Your task to perform on an android device: turn off location history Image 0: 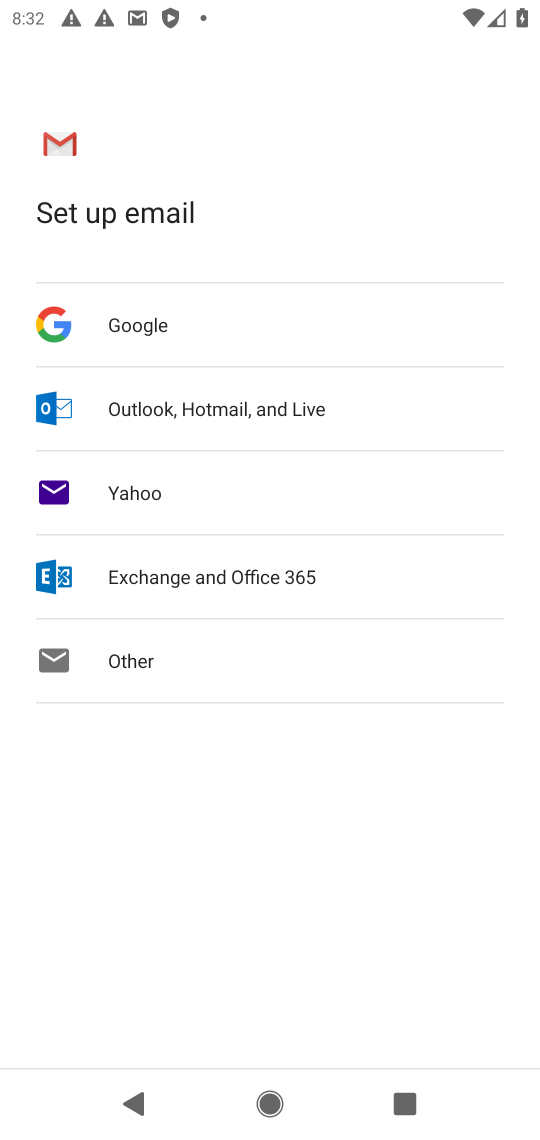
Step 0: press home button
Your task to perform on an android device: turn off location history Image 1: 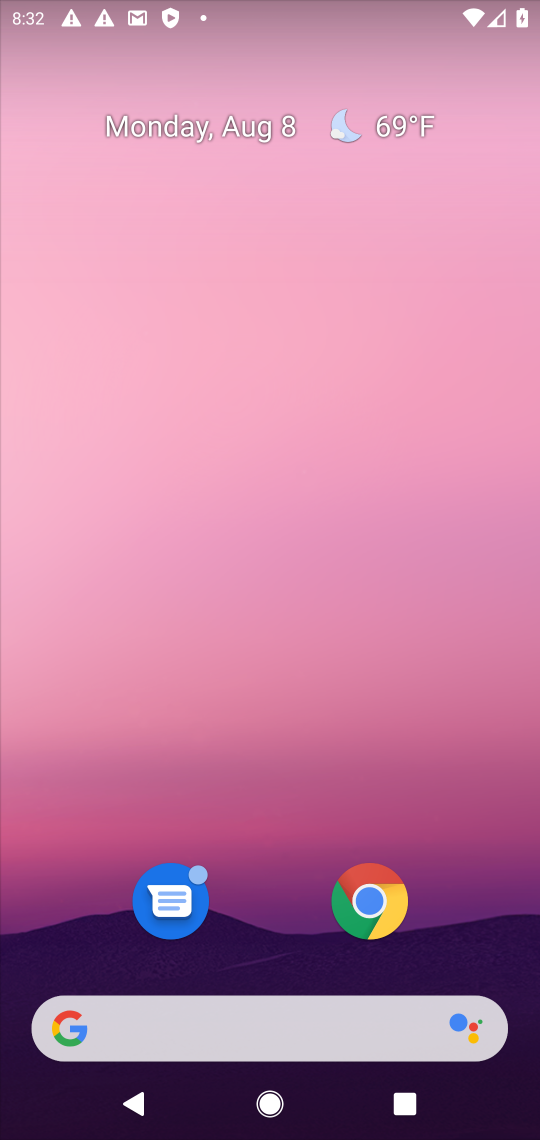
Step 1: drag from (259, 863) to (248, 226)
Your task to perform on an android device: turn off location history Image 2: 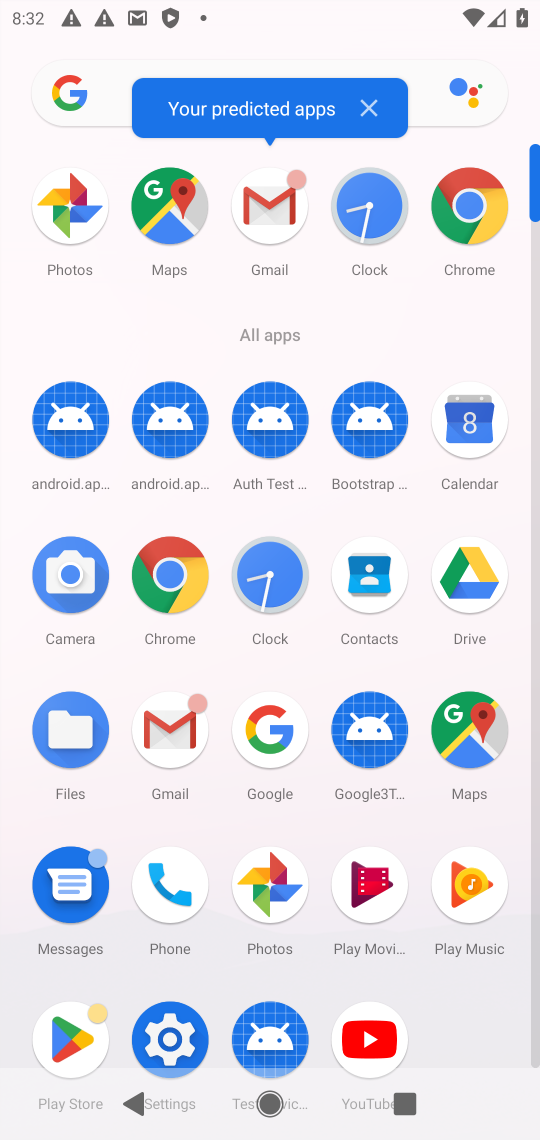
Step 2: click (155, 1035)
Your task to perform on an android device: turn off location history Image 3: 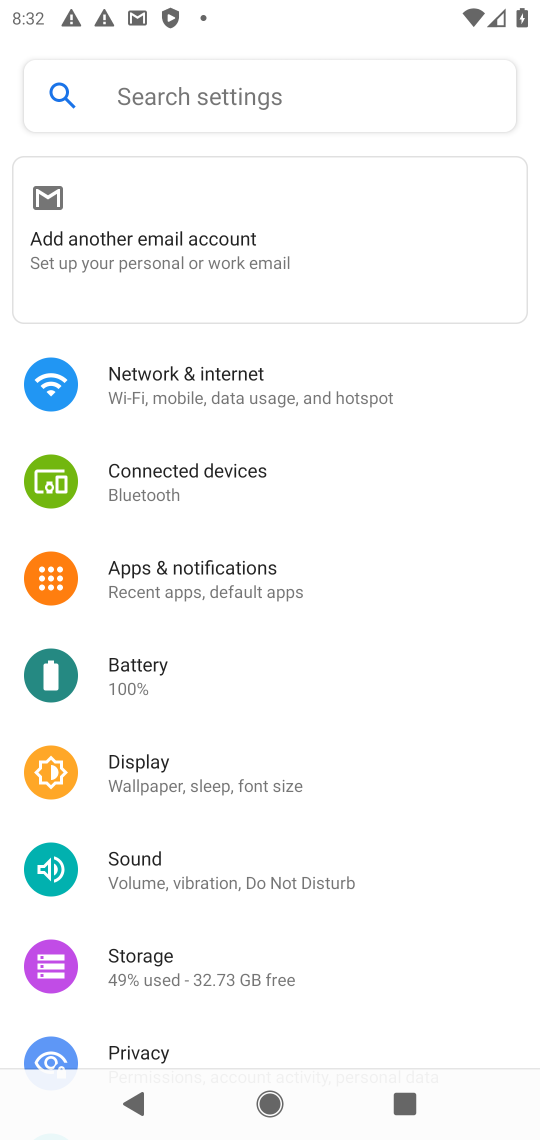
Step 3: drag from (278, 1018) to (253, 646)
Your task to perform on an android device: turn off location history Image 4: 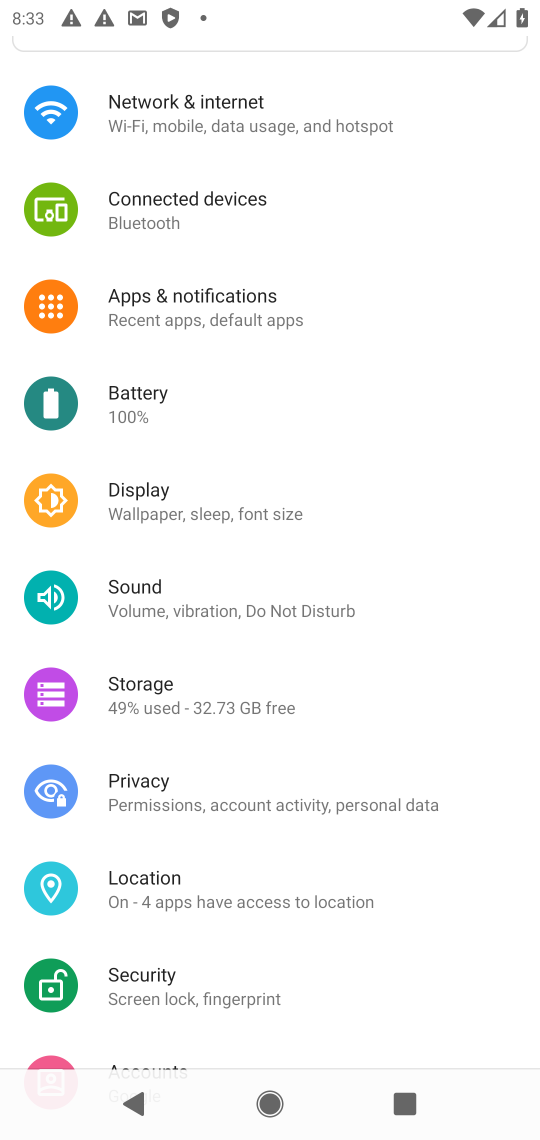
Step 4: click (253, 452)
Your task to perform on an android device: turn off location history Image 5: 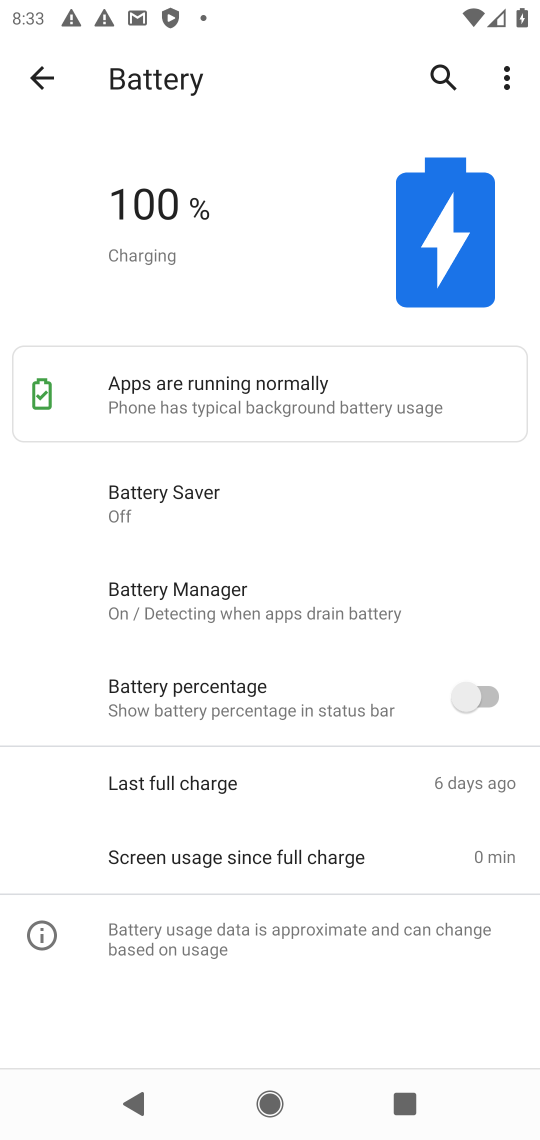
Step 5: click (33, 80)
Your task to perform on an android device: turn off location history Image 6: 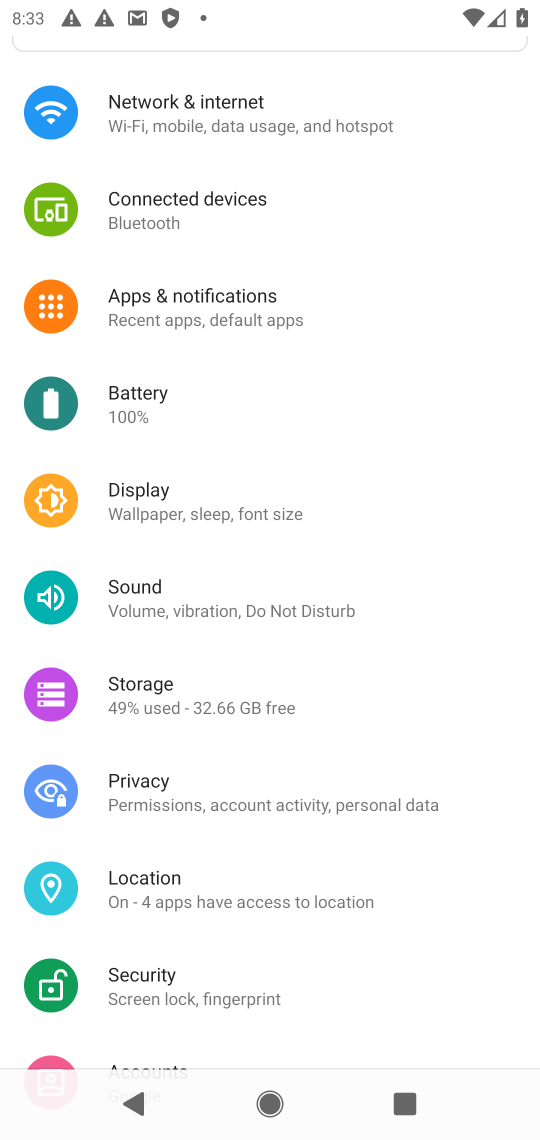
Step 6: drag from (176, 769) to (176, 652)
Your task to perform on an android device: turn off location history Image 7: 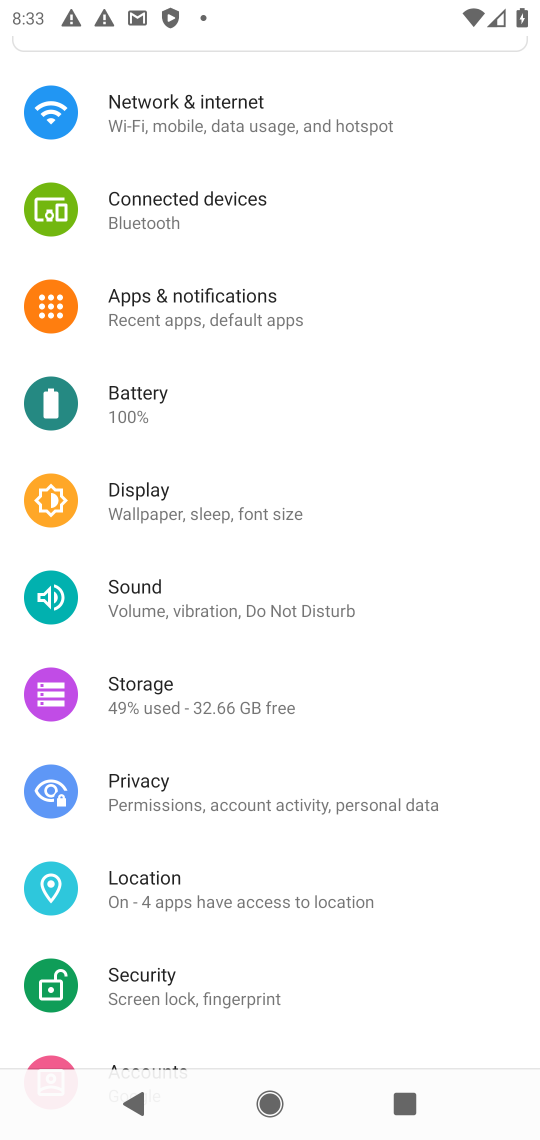
Step 7: click (151, 884)
Your task to perform on an android device: turn off location history Image 8: 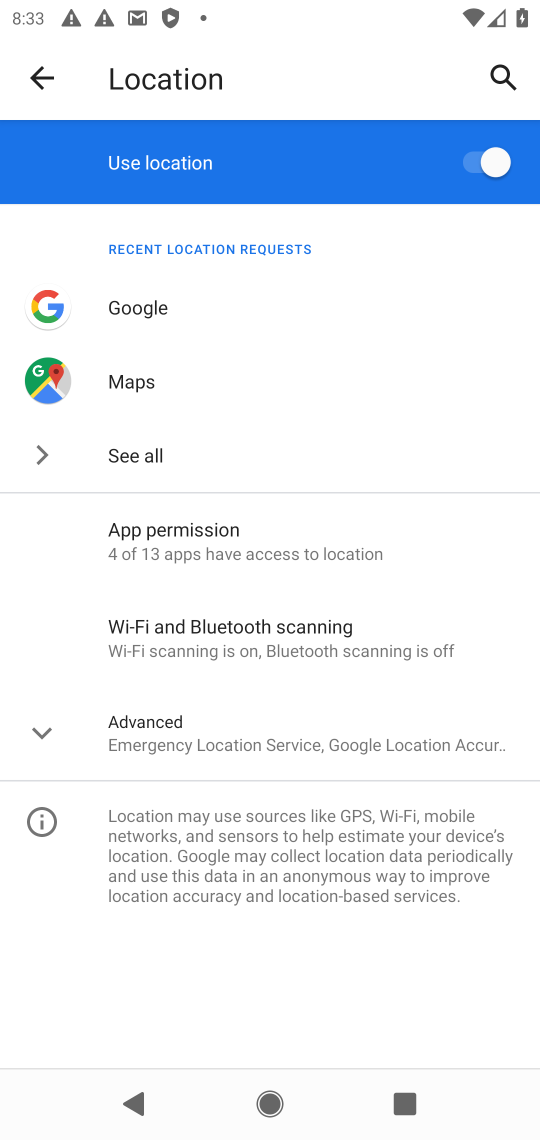
Step 8: click (186, 748)
Your task to perform on an android device: turn off location history Image 9: 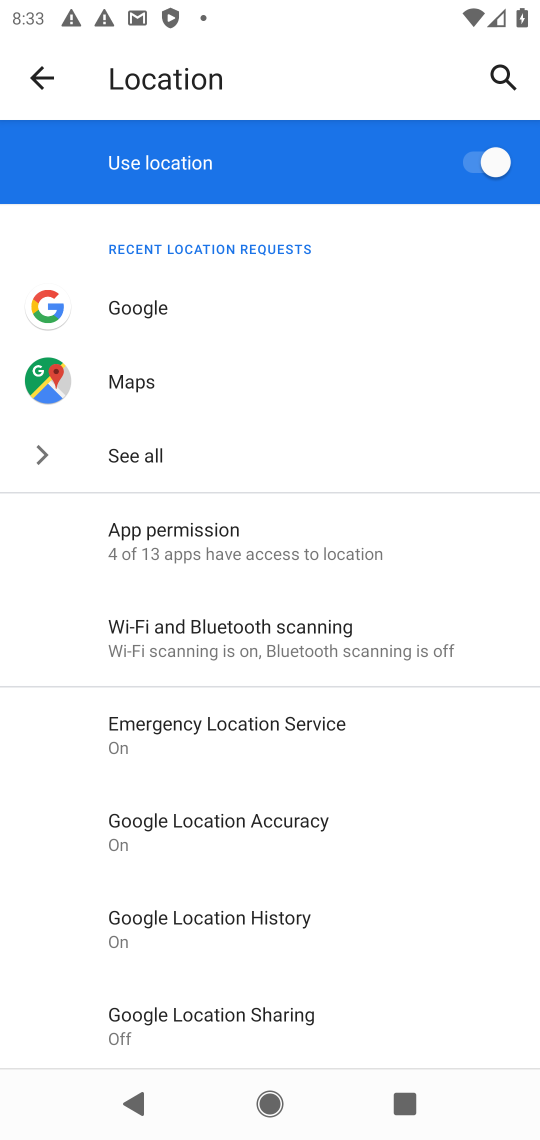
Step 9: click (181, 914)
Your task to perform on an android device: turn off location history Image 10: 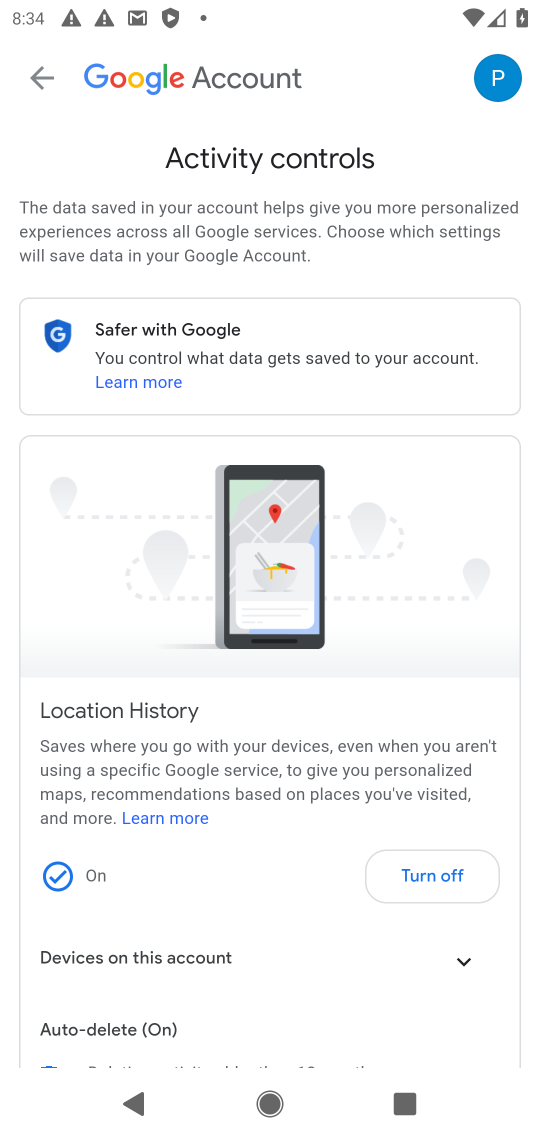
Step 10: click (441, 859)
Your task to perform on an android device: turn off location history Image 11: 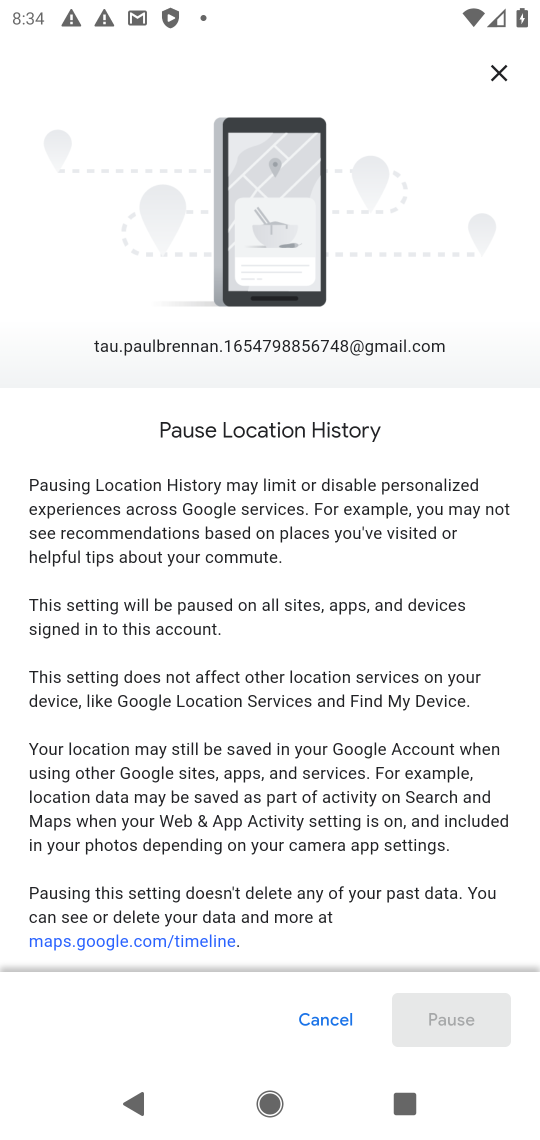
Step 11: drag from (386, 840) to (386, 562)
Your task to perform on an android device: turn off location history Image 12: 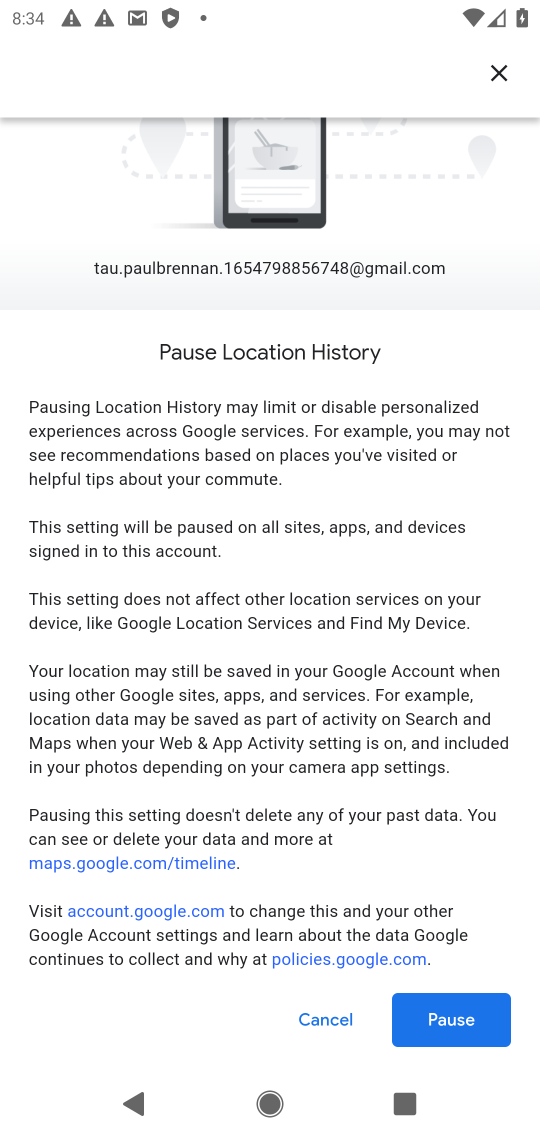
Step 12: click (437, 999)
Your task to perform on an android device: turn off location history Image 13: 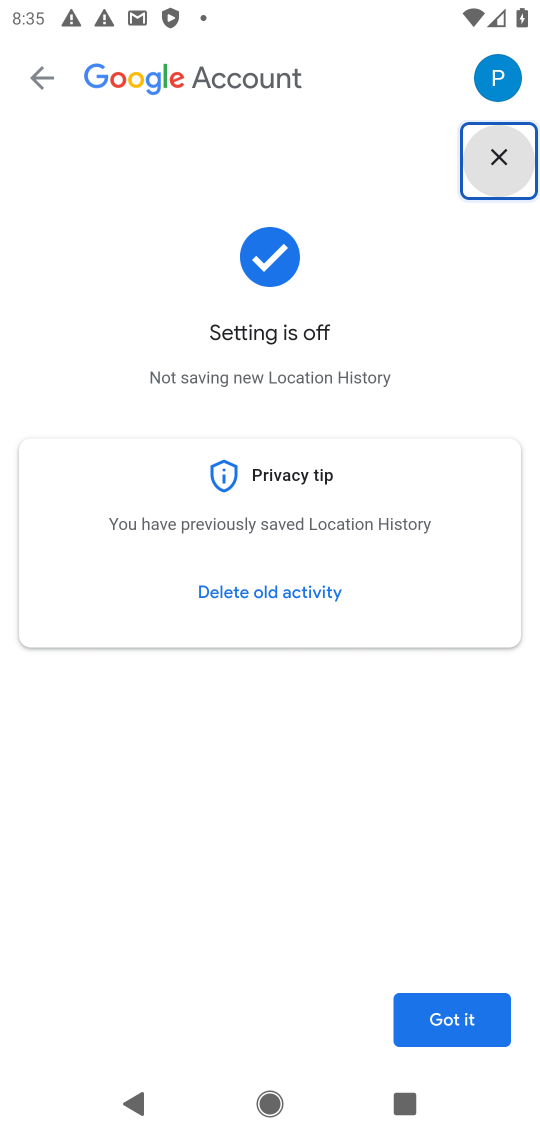
Step 13: click (468, 1017)
Your task to perform on an android device: turn off location history Image 14: 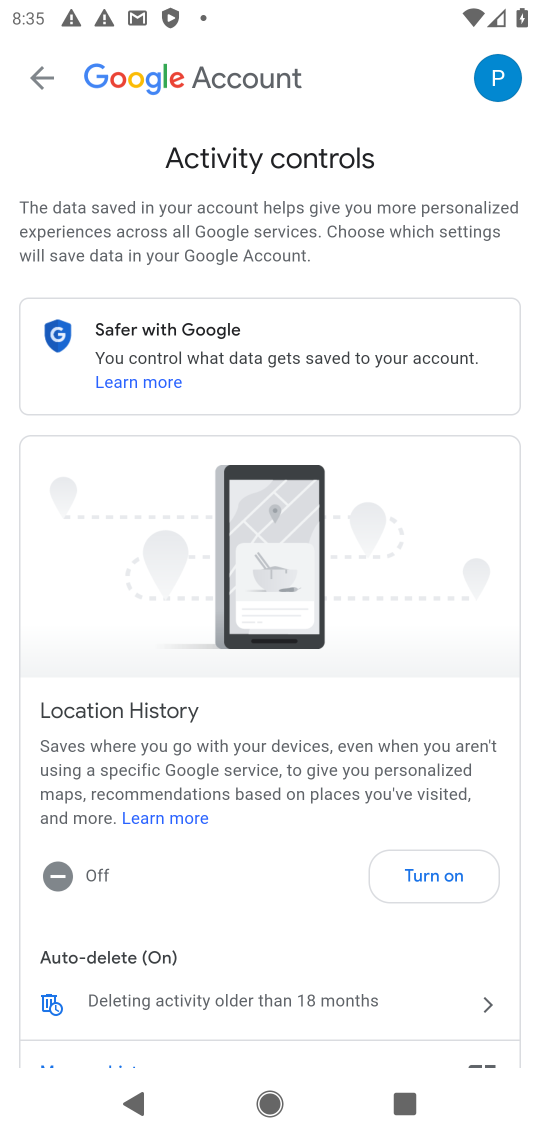
Step 14: task complete